Your task to perform on an android device: Open Amazon Image 0: 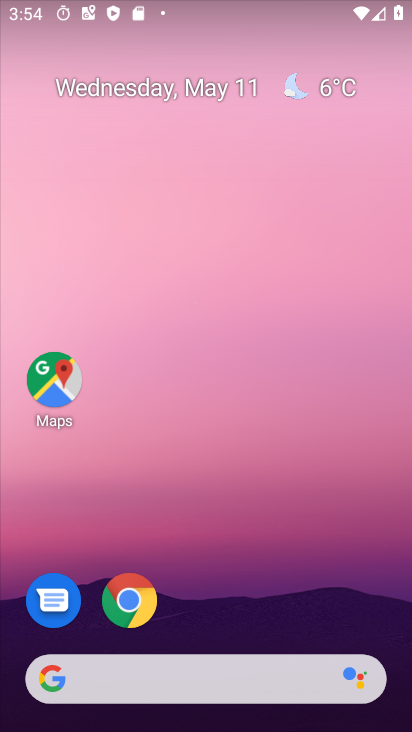
Step 0: drag from (306, 645) to (129, 126)
Your task to perform on an android device: Open Amazon Image 1: 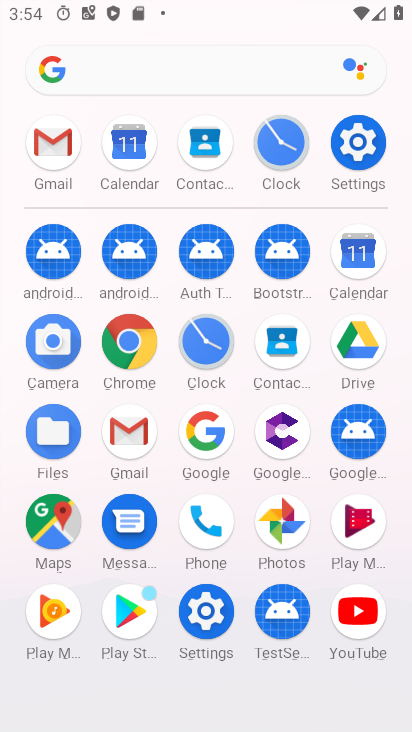
Step 1: click (109, 327)
Your task to perform on an android device: Open Amazon Image 2: 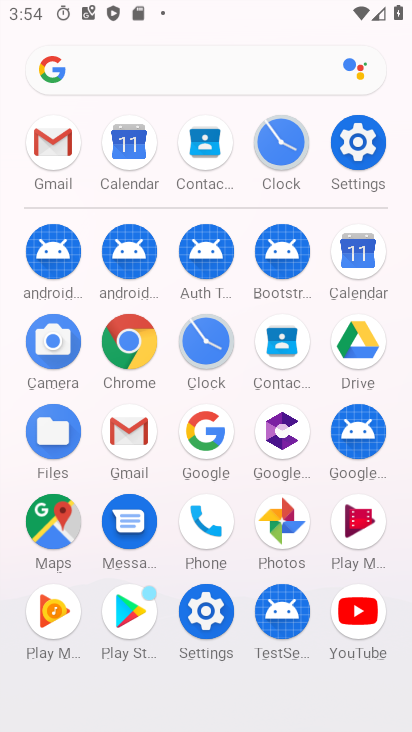
Step 2: click (131, 343)
Your task to perform on an android device: Open Amazon Image 3: 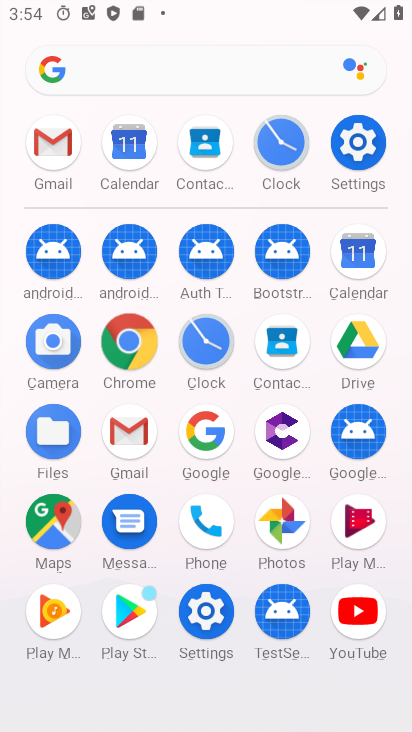
Step 3: click (131, 343)
Your task to perform on an android device: Open Amazon Image 4: 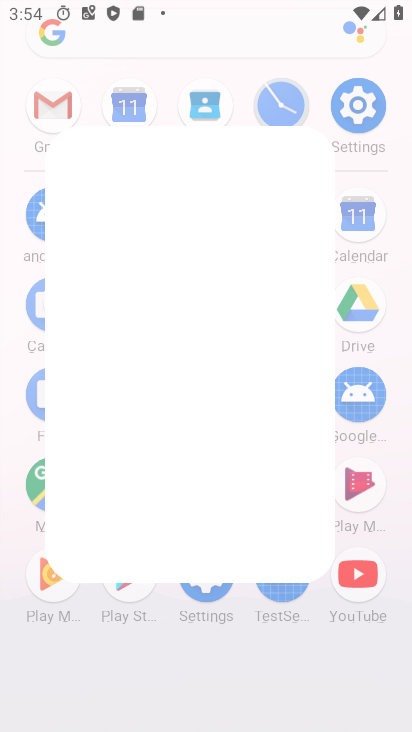
Step 4: click (131, 343)
Your task to perform on an android device: Open Amazon Image 5: 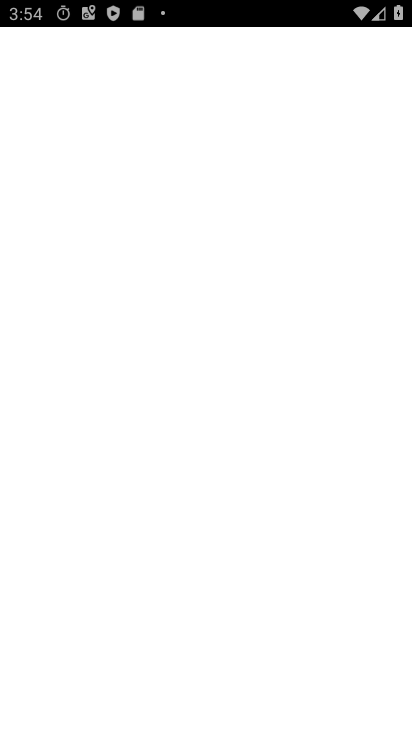
Step 5: click (125, 338)
Your task to perform on an android device: Open Amazon Image 6: 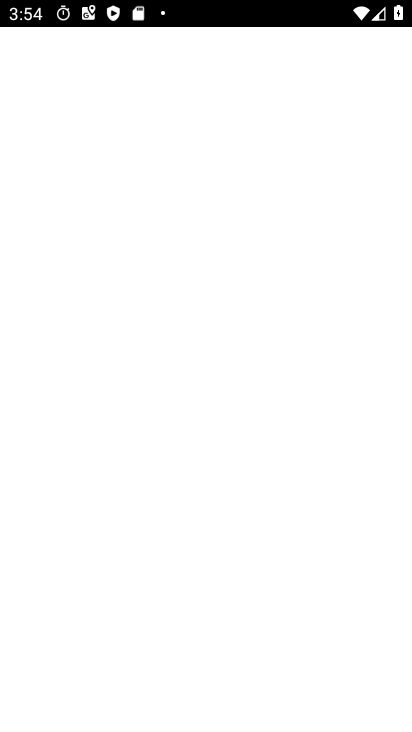
Step 6: click (123, 336)
Your task to perform on an android device: Open Amazon Image 7: 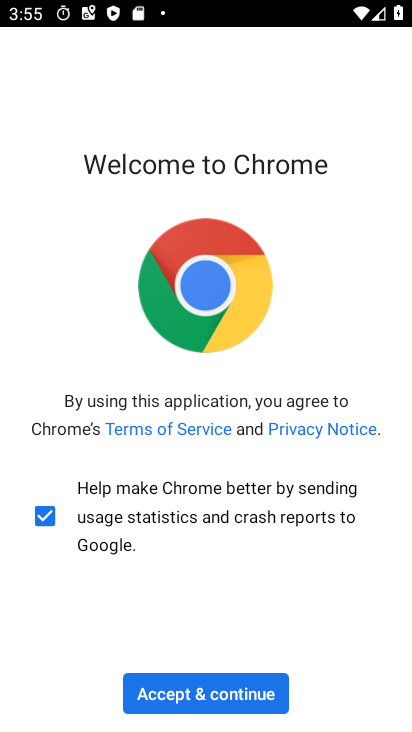
Step 7: click (218, 687)
Your task to perform on an android device: Open Amazon Image 8: 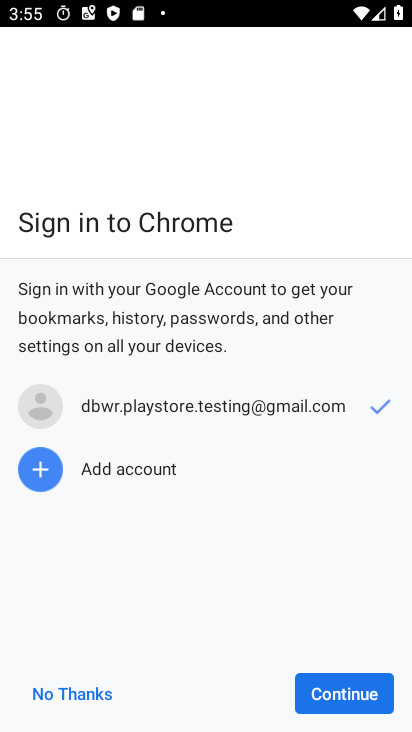
Step 8: click (362, 692)
Your task to perform on an android device: Open Amazon Image 9: 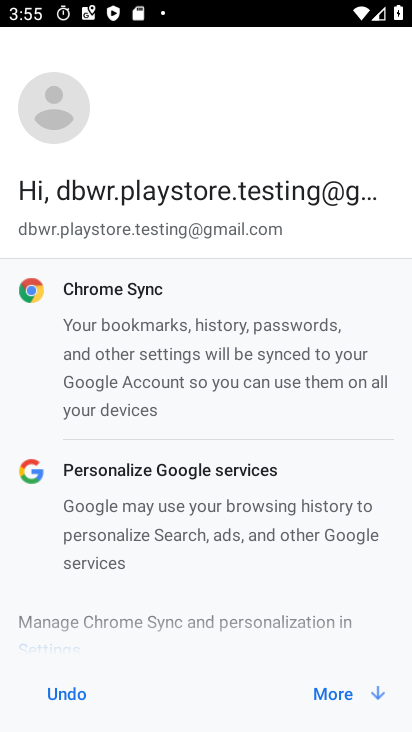
Step 9: click (333, 696)
Your task to perform on an android device: Open Amazon Image 10: 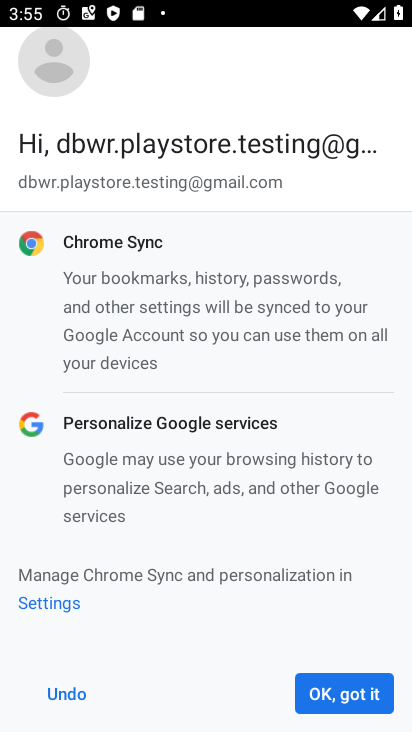
Step 10: click (334, 669)
Your task to perform on an android device: Open Amazon Image 11: 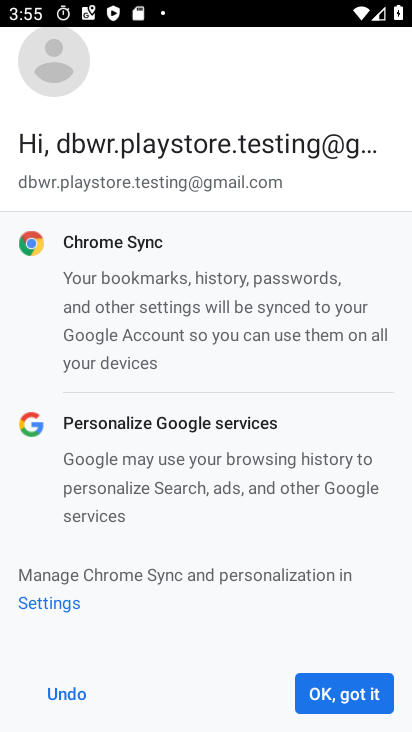
Step 11: click (352, 677)
Your task to perform on an android device: Open Amazon Image 12: 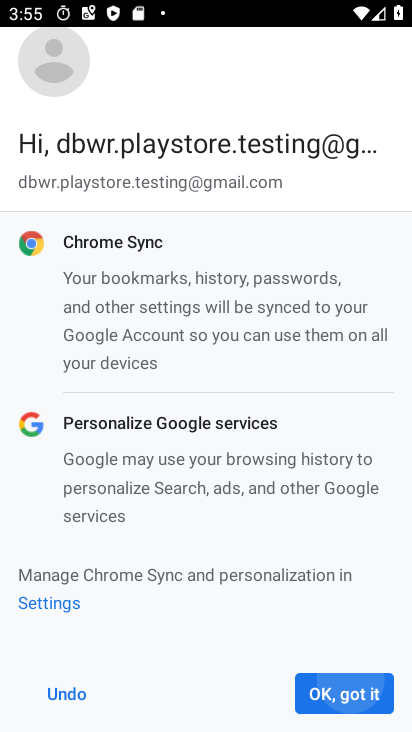
Step 12: click (350, 677)
Your task to perform on an android device: Open Amazon Image 13: 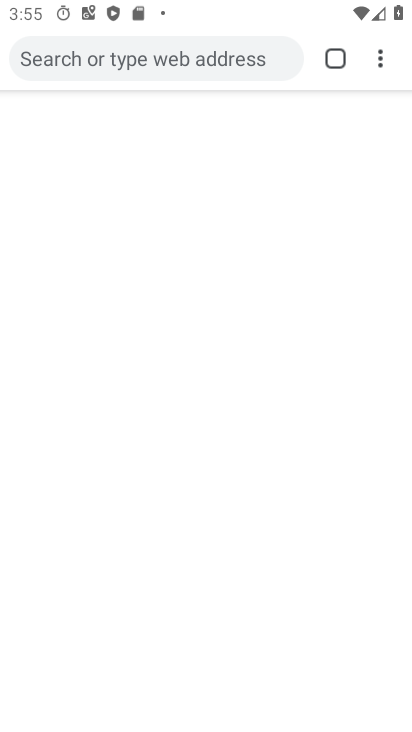
Step 13: click (349, 678)
Your task to perform on an android device: Open Amazon Image 14: 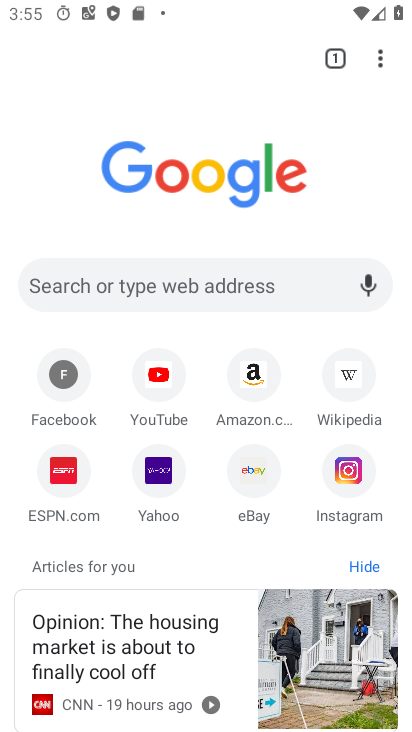
Step 14: click (229, 374)
Your task to perform on an android device: Open Amazon Image 15: 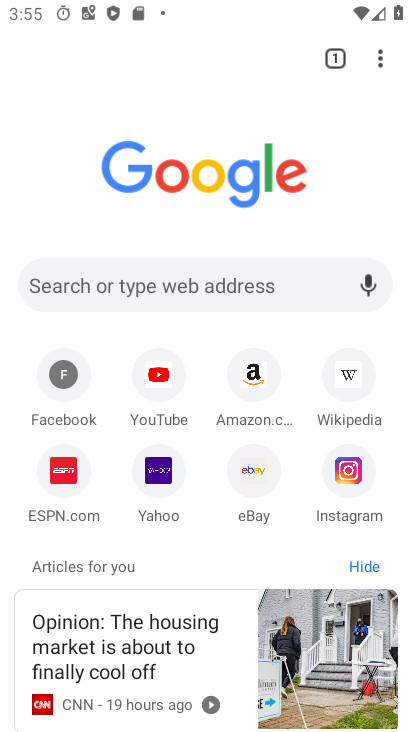
Step 15: click (231, 373)
Your task to perform on an android device: Open Amazon Image 16: 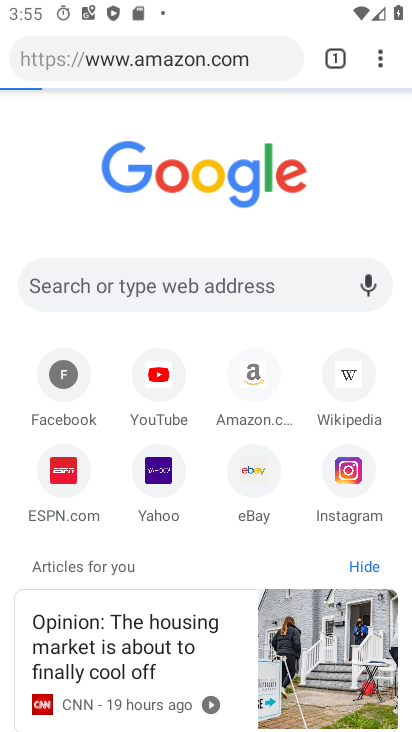
Step 16: click (235, 354)
Your task to perform on an android device: Open Amazon Image 17: 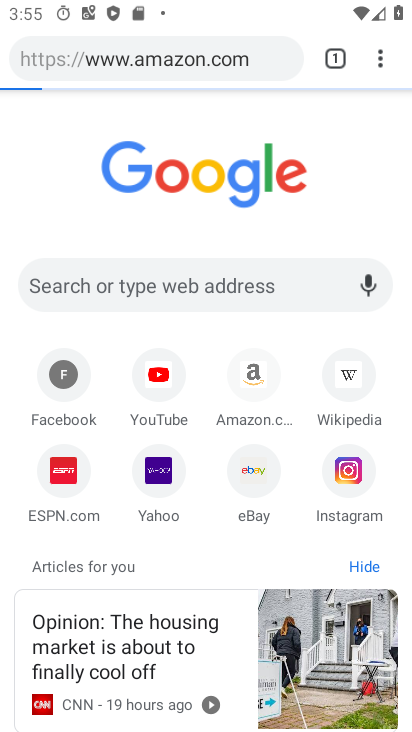
Step 17: click (235, 354)
Your task to perform on an android device: Open Amazon Image 18: 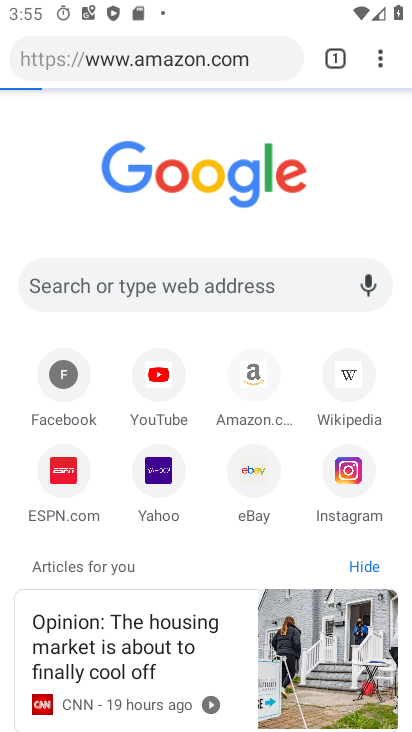
Step 18: click (237, 355)
Your task to perform on an android device: Open Amazon Image 19: 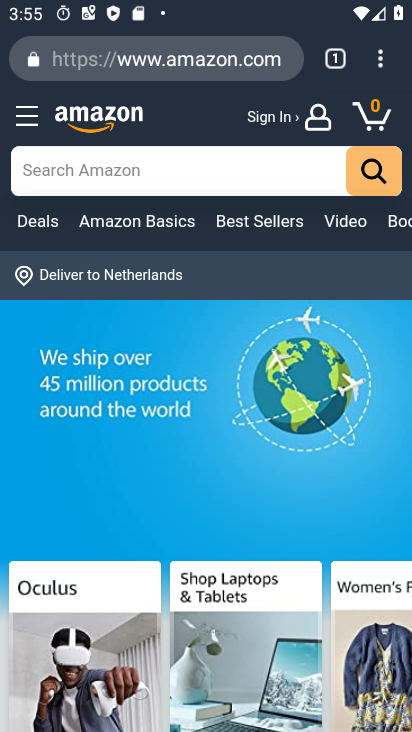
Step 19: task complete